Your task to perform on an android device: check storage Image 0: 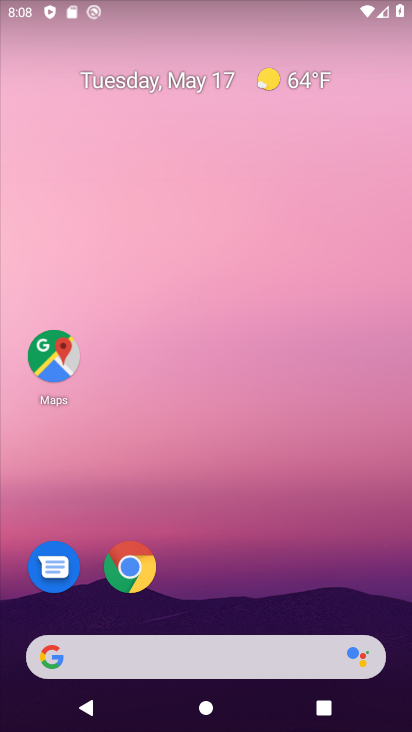
Step 0: drag from (349, 590) to (187, 79)
Your task to perform on an android device: check storage Image 1: 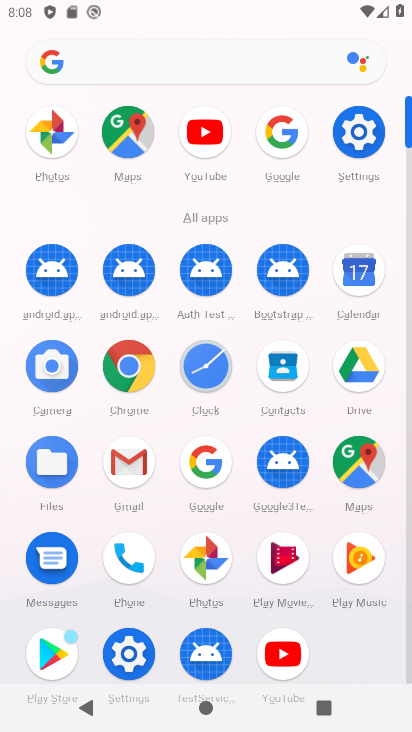
Step 1: click (365, 117)
Your task to perform on an android device: check storage Image 2: 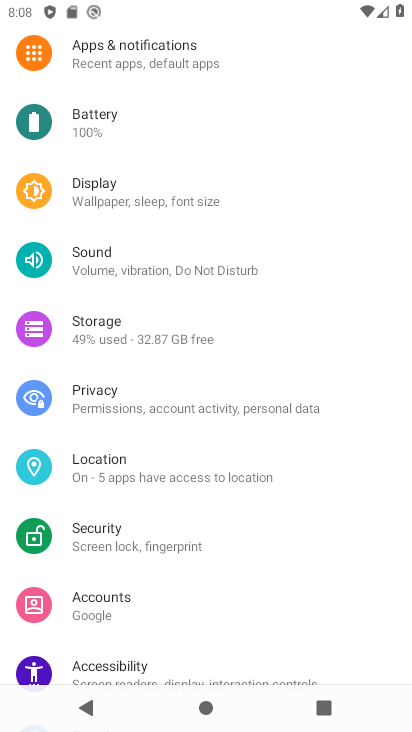
Step 2: click (156, 330)
Your task to perform on an android device: check storage Image 3: 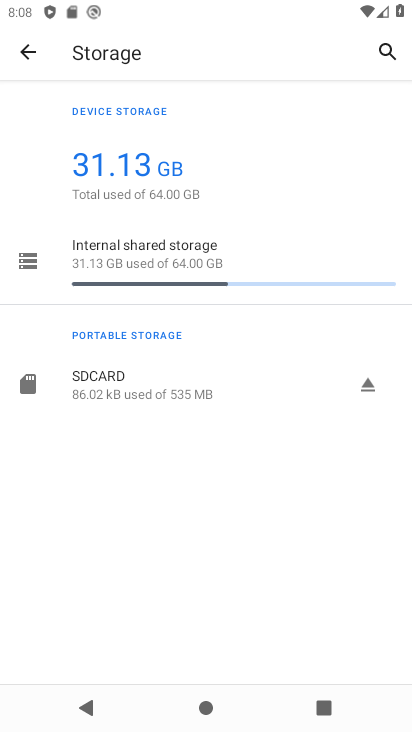
Step 3: click (144, 260)
Your task to perform on an android device: check storage Image 4: 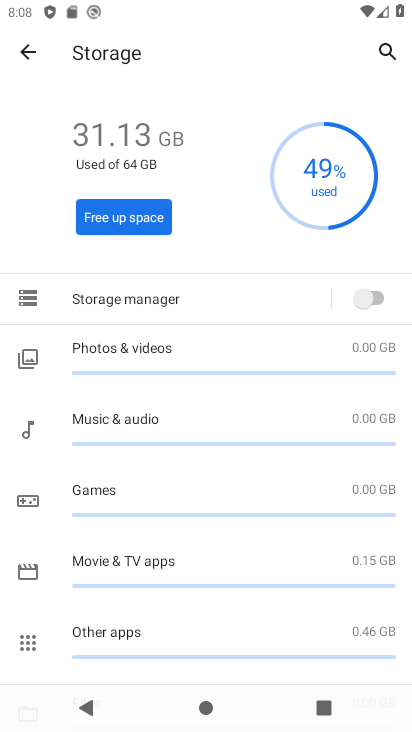
Step 4: task complete